Your task to perform on an android device: Open CNN.com Image 0: 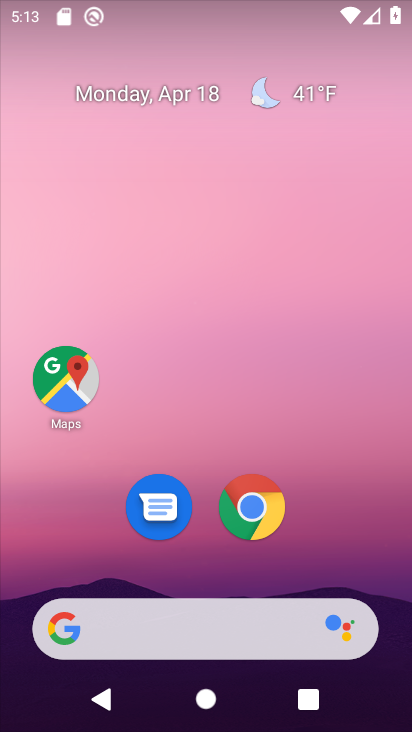
Step 0: drag from (272, 486) to (275, 94)
Your task to perform on an android device: Open CNN.com Image 1: 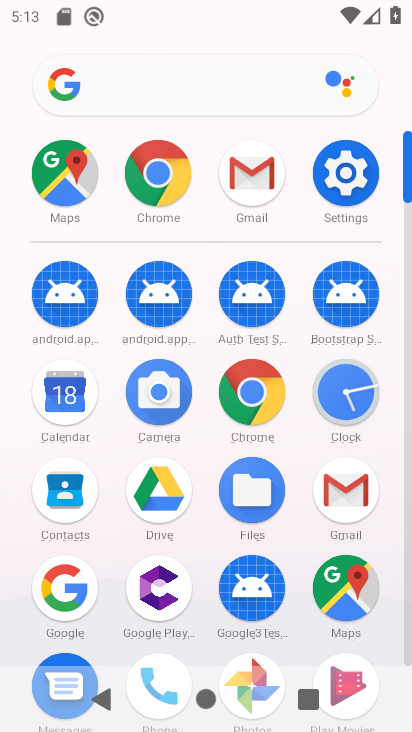
Step 1: click (253, 410)
Your task to perform on an android device: Open CNN.com Image 2: 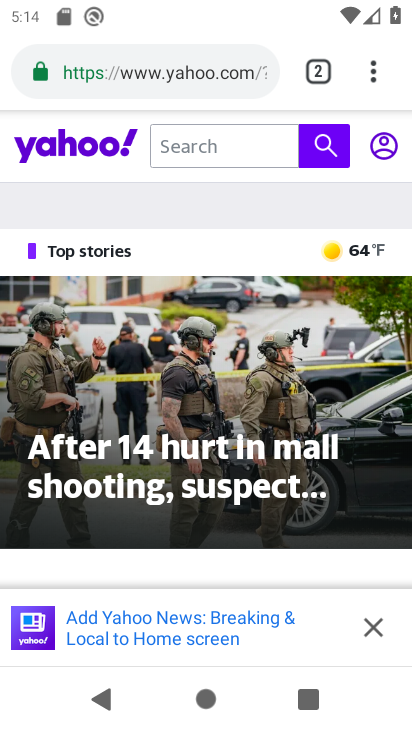
Step 2: drag from (262, 577) to (271, 202)
Your task to perform on an android device: Open CNN.com Image 3: 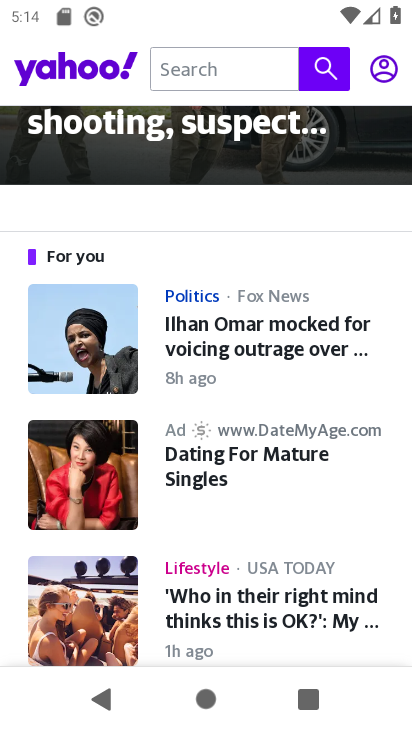
Step 3: drag from (273, 568) to (279, 224)
Your task to perform on an android device: Open CNN.com Image 4: 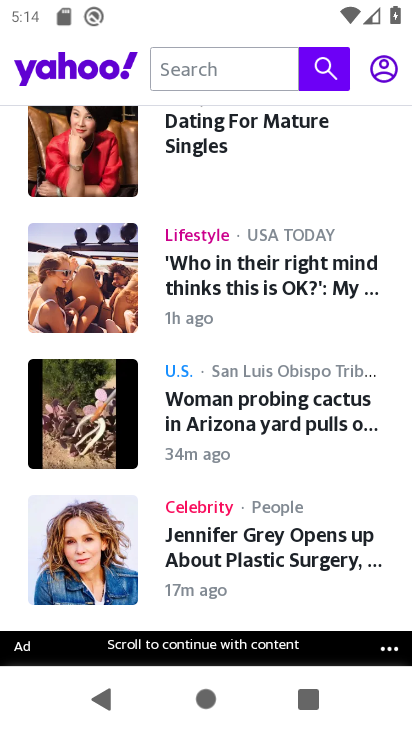
Step 4: drag from (307, 144) to (313, 622)
Your task to perform on an android device: Open CNN.com Image 5: 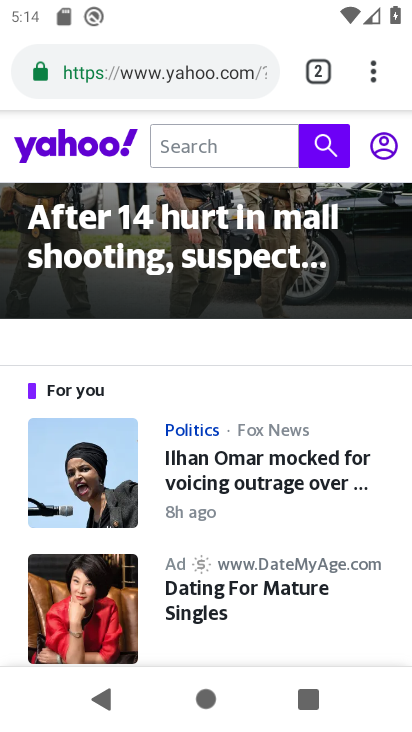
Step 5: click (244, 59)
Your task to perform on an android device: Open CNN.com Image 6: 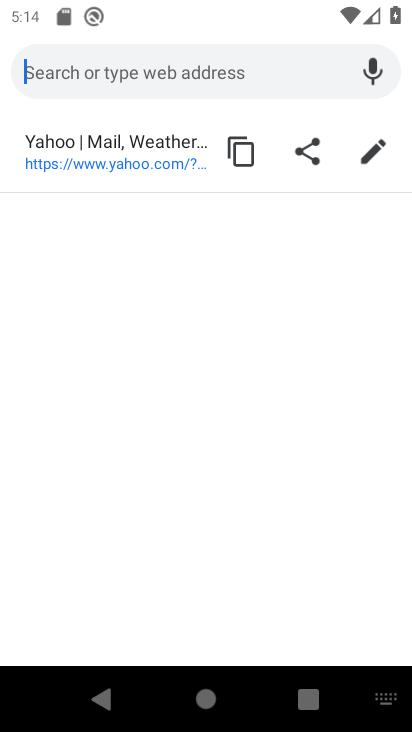
Step 6: type "cnn.com"
Your task to perform on an android device: Open CNN.com Image 7: 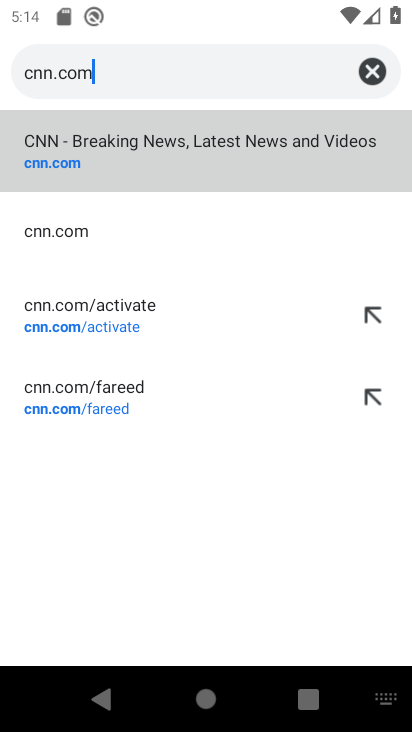
Step 7: click (159, 147)
Your task to perform on an android device: Open CNN.com Image 8: 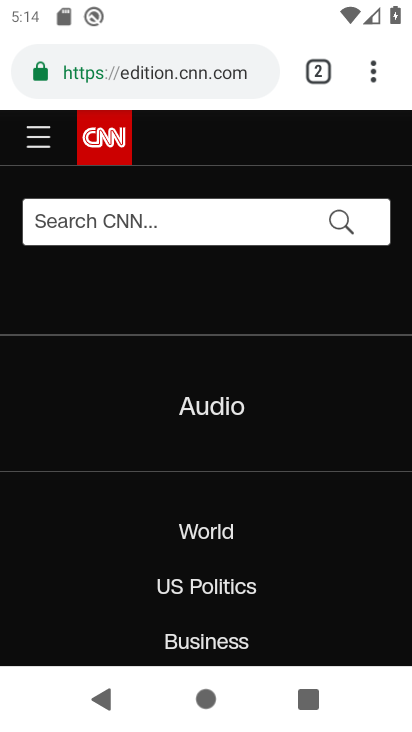
Step 8: task complete